Your task to perform on an android device: add a label to a message in the gmail app Image 0: 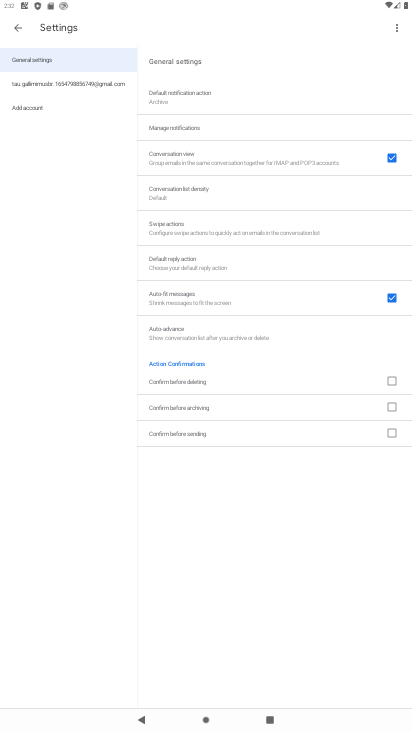
Step 0: press home button
Your task to perform on an android device: add a label to a message in the gmail app Image 1: 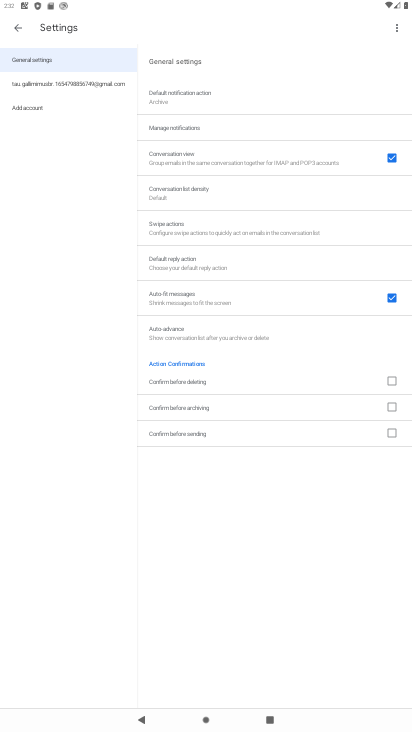
Step 1: press home button
Your task to perform on an android device: add a label to a message in the gmail app Image 2: 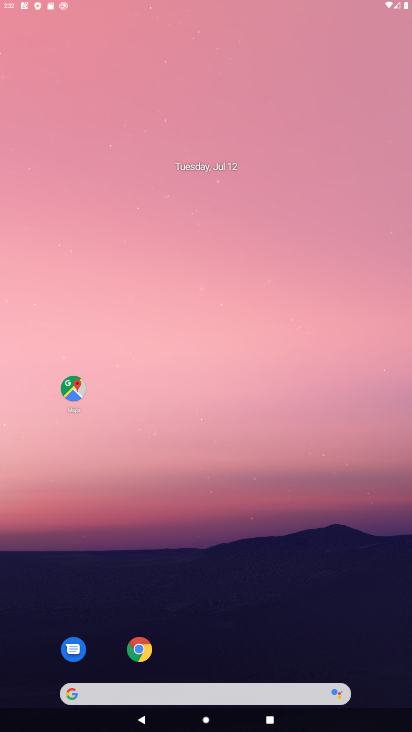
Step 2: press home button
Your task to perform on an android device: add a label to a message in the gmail app Image 3: 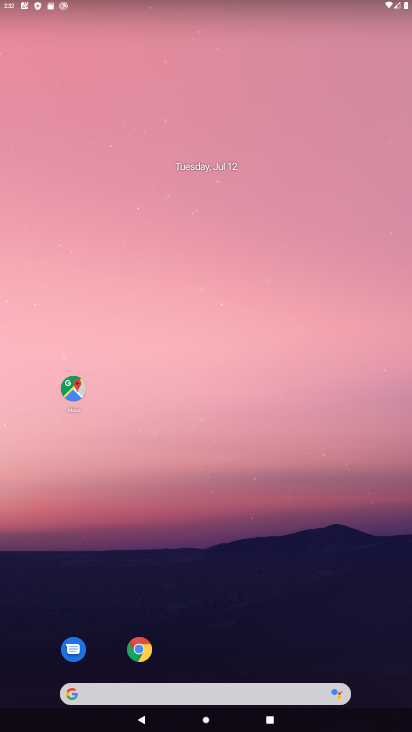
Step 3: drag from (258, 669) to (258, 330)
Your task to perform on an android device: add a label to a message in the gmail app Image 4: 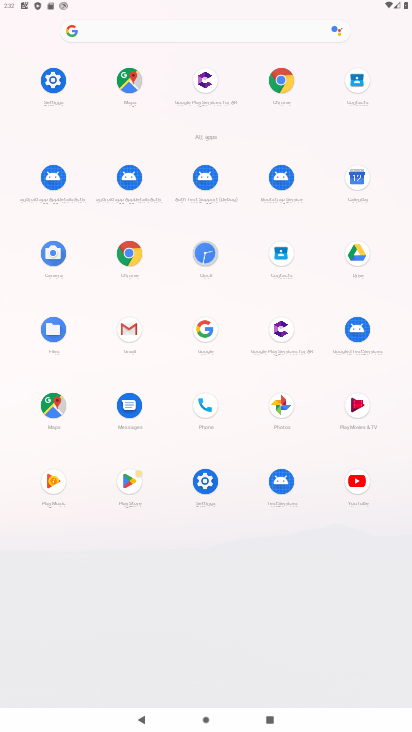
Step 4: click (117, 342)
Your task to perform on an android device: add a label to a message in the gmail app Image 5: 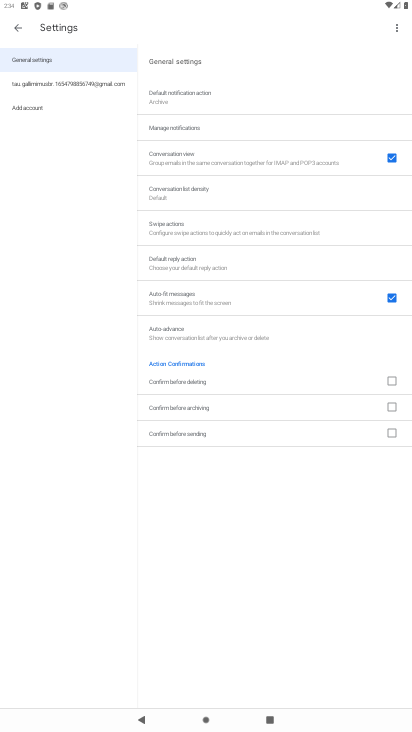
Step 5: click (14, 14)
Your task to perform on an android device: add a label to a message in the gmail app Image 6: 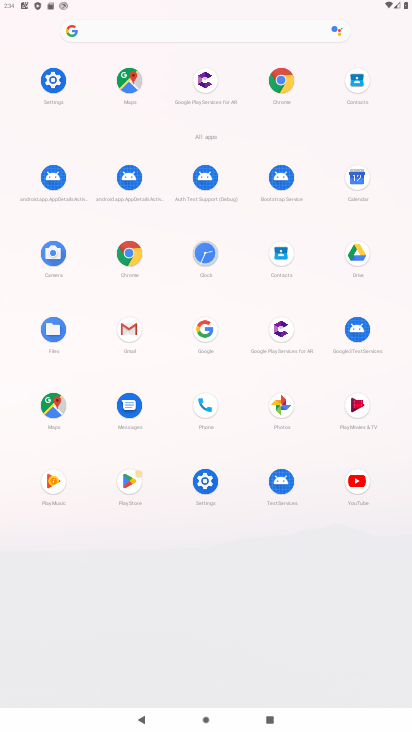
Step 6: click (140, 353)
Your task to perform on an android device: add a label to a message in the gmail app Image 7: 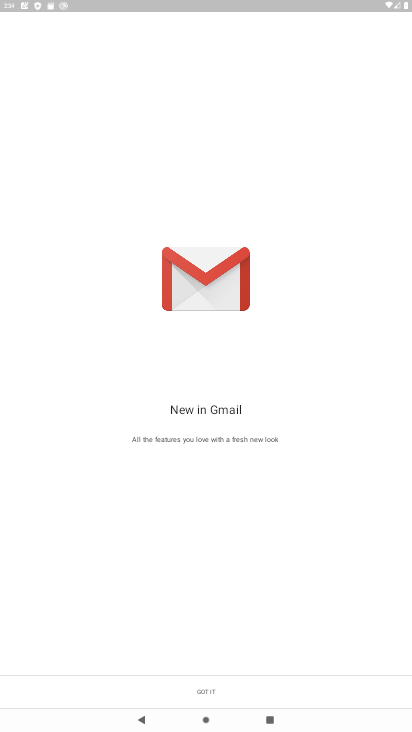
Step 7: click (209, 688)
Your task to perform on an android device: add a label to a message in the gmail app Image 8: 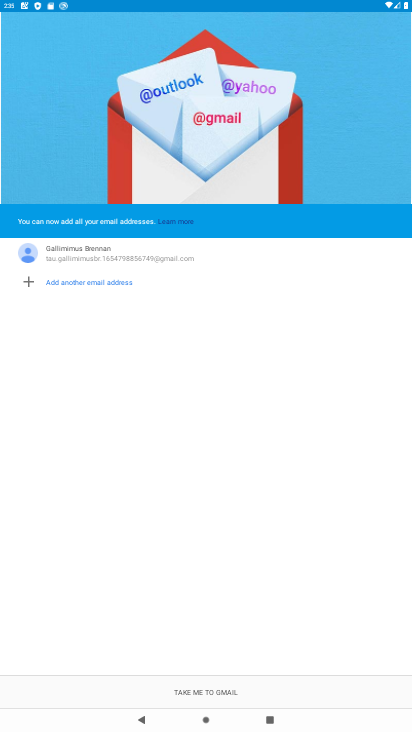
Step 8: click (204, 693)
Your task to perform on an android device: add a label to a message in the gmail app Image 9: 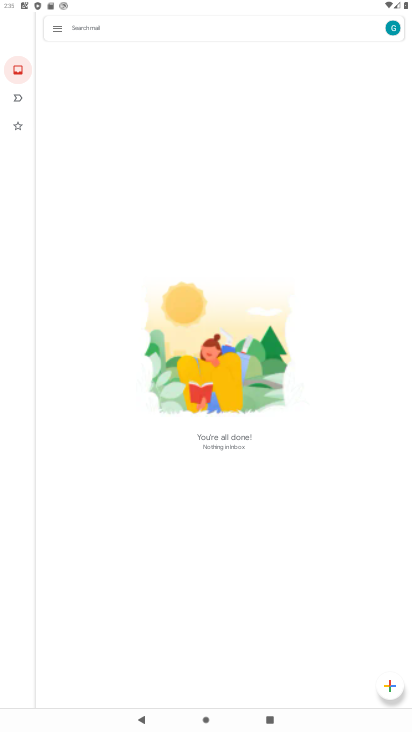
Step 9: task complete